Your task to perform on an android device: Go to display settings Image 0: 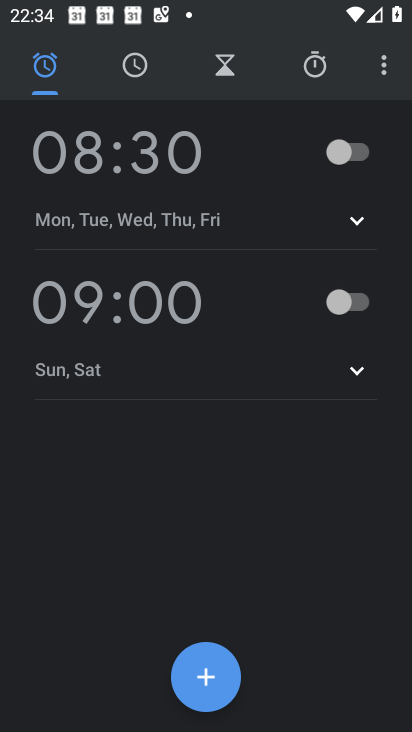
Step 0: press home button
Your task to perform on an android device: Go to display settings Image 1: 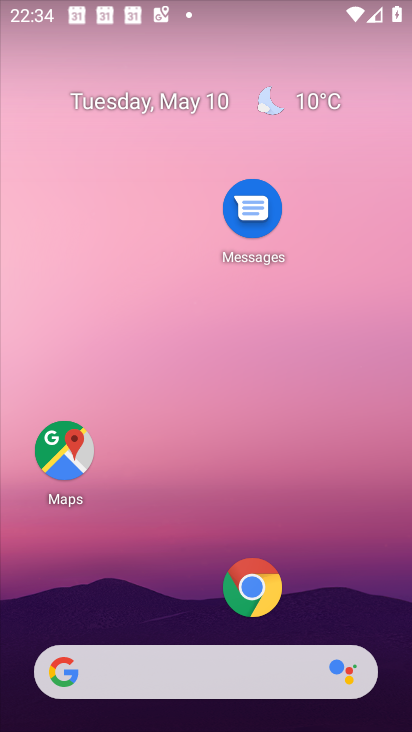
Step 1: drag from (149, 620) to (215, 317)
Your task to perform on an android device: Go to display settings Image 2: 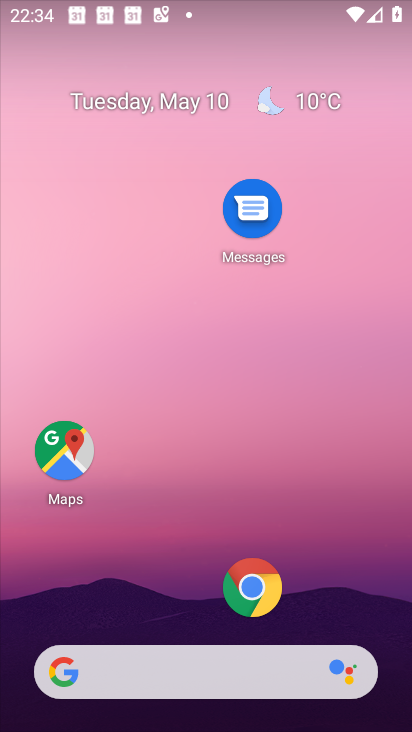
Step 2: drag from (207, 639) to (233, 223)
Your task to perform on an android device: Go to display settings Image 3: 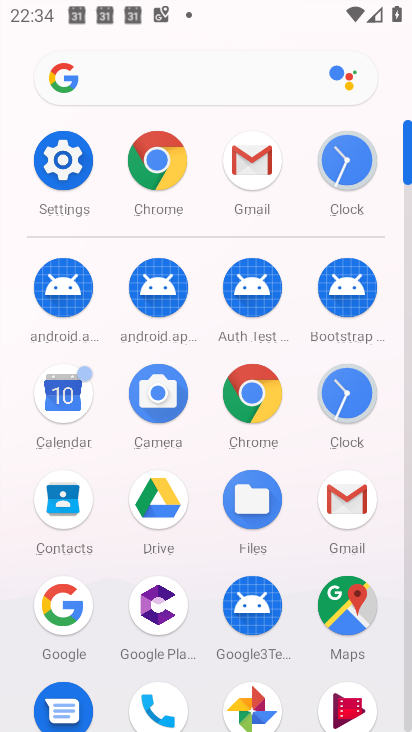
Step 3: click (66, 189)
Your task to perform on an android device: Go to display settings Image 4: 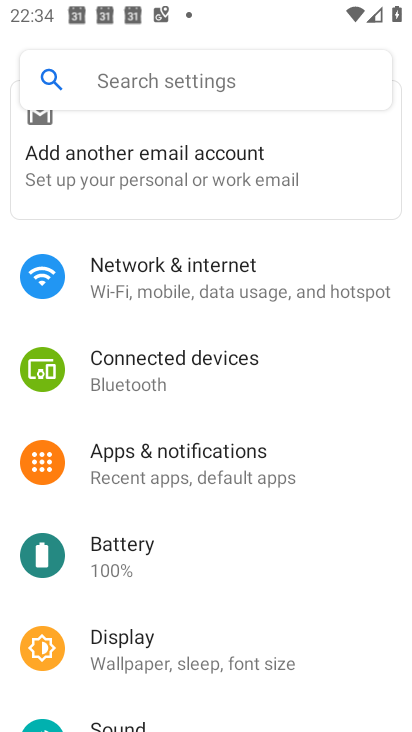
Step 4: click (152, 644)
Your task to perform on an android device: Go to display settings Image 5: 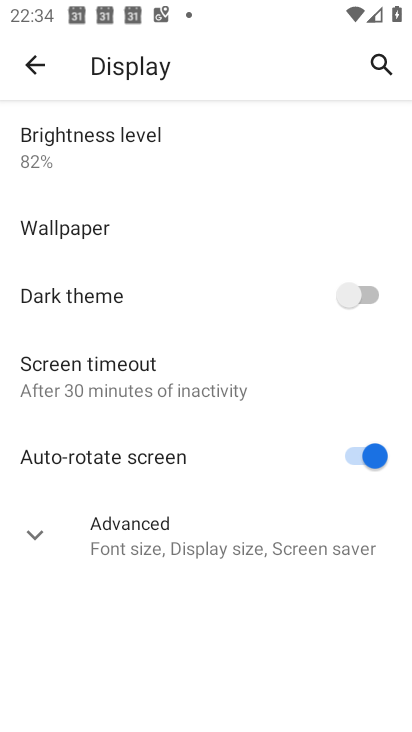
Step 5: task complete